Your task to perform on an android device: Open settings on Google Maps Image 0: 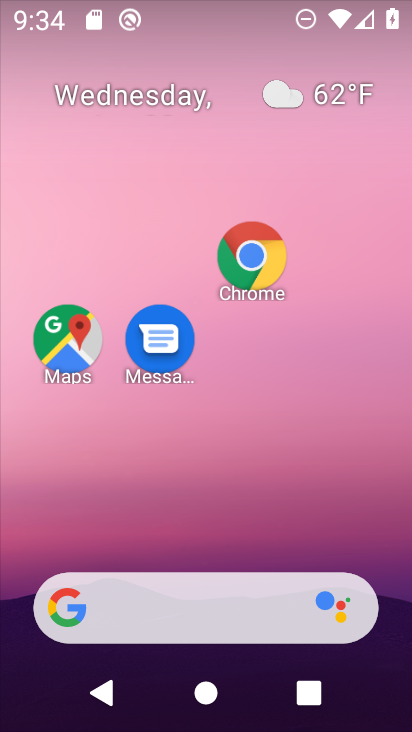
Step 0: click (69, 338)
Your task to perform on an android device: Open settings on Google Maps Image 1: 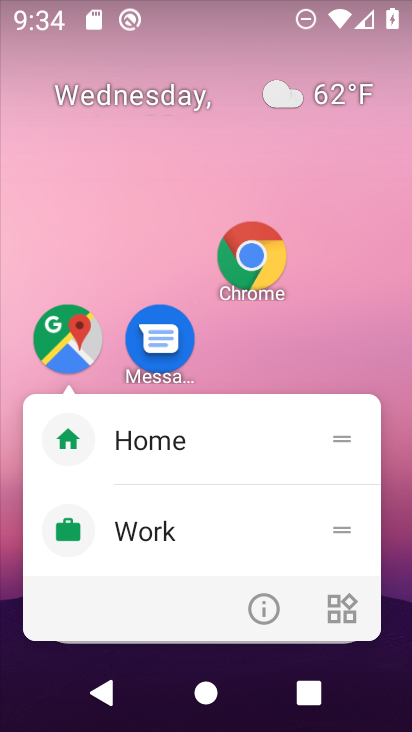
Step 1: click (69, 338)
Your task to perform on an android device: Open settings on Google Maps Image 2: 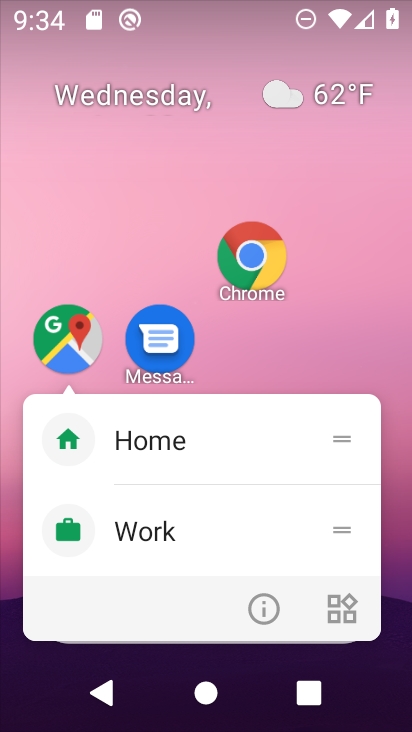
Step 2: click (69, 338)
Your task to perform on an android device: Open settings on Google Maps Image 3: 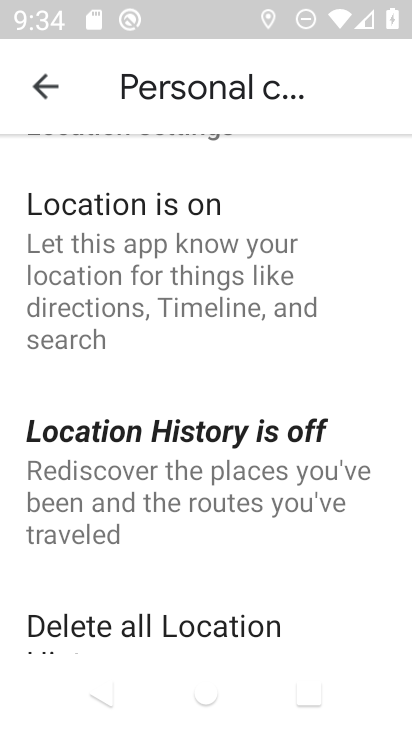
Step 3: press back button
Your task to perform on an android device: Open settings on Google Maps Image 4: 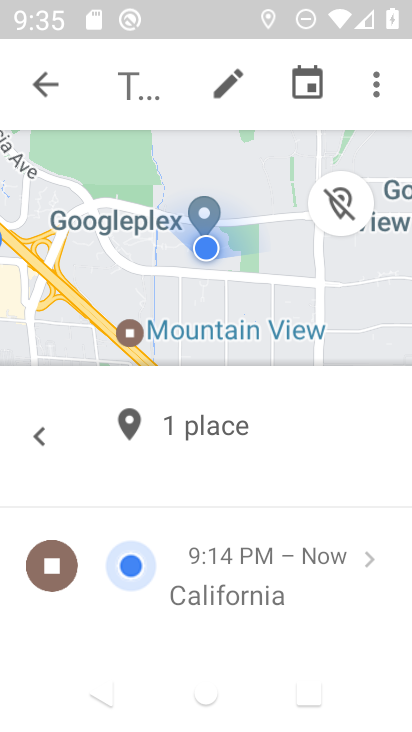
Step 4: press back button
Your task to perform on an android device: Open settings on Google Maps Image 5: 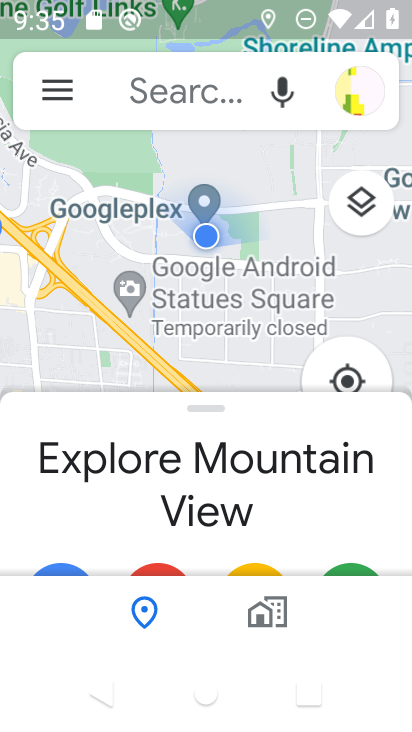
Step 5: click (65, 91)
Your task to perform on an android device: Open settings on Google Maps Image 6: 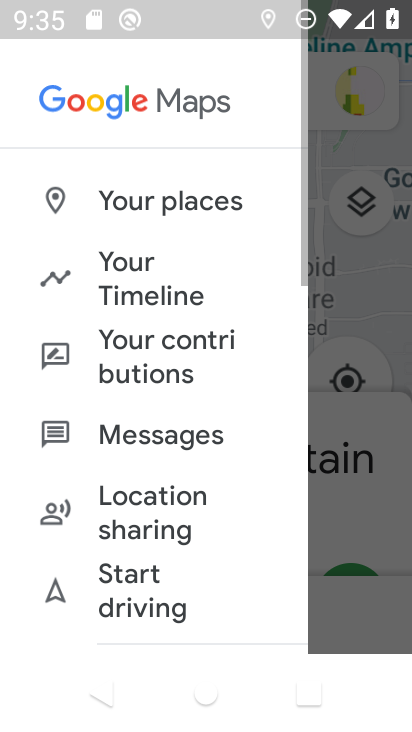
Step 6: drag from (210, 502) to (176, 21)
Your task to perform on an android device: Open settings on Google Maps Image 7: 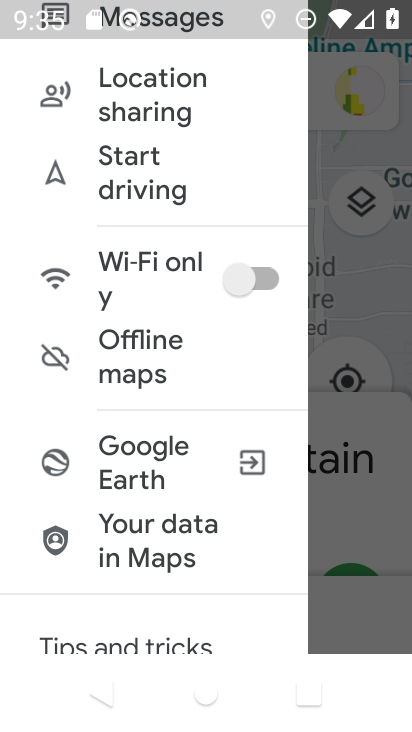
Step 7: drag from (147, 583) to (103, 1)
Your task to perform on an android device: Open settings on Google Maps Image 8: 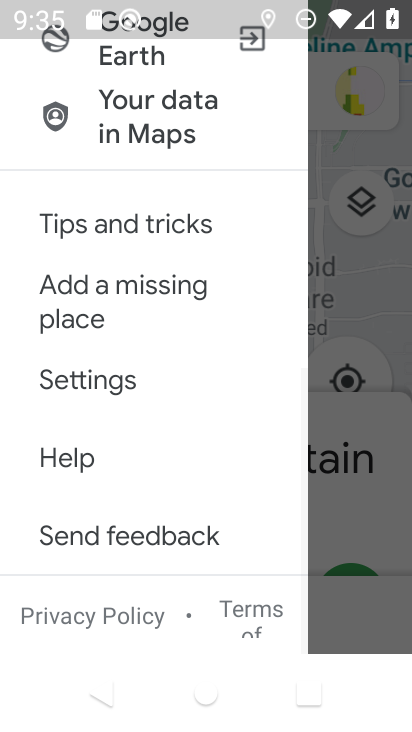
Step 8: click (124, 375)
Your task to perform on an android device: Open settings on Google Maps Image 9: 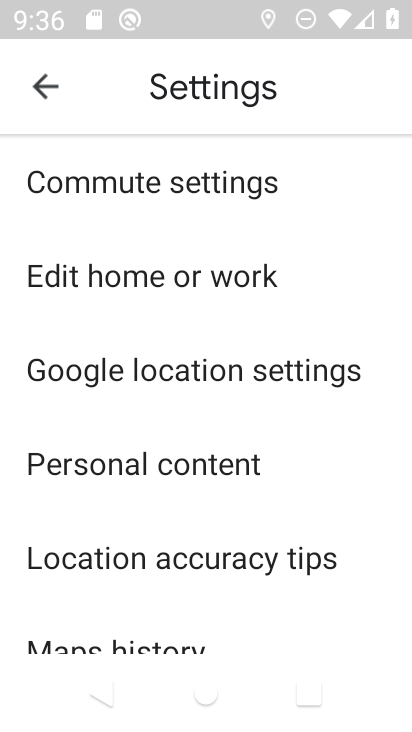
Step 9: task complete